Your task to perform on an android device: Open sound settings Image 0: 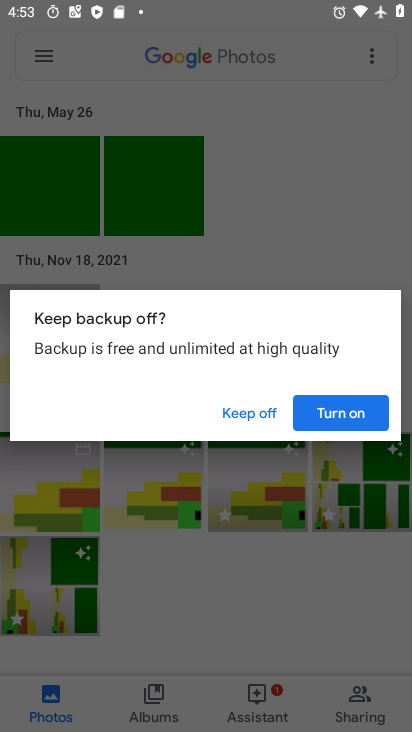
Step 0: press back button
Your task to perform on an android device: Open sound settings Image 1: 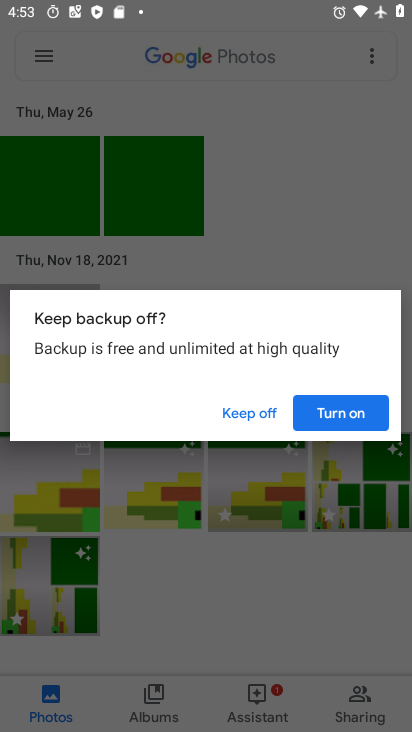
Step 1: press home button
Your task to perform on an android device: Open sound settings Image 2: 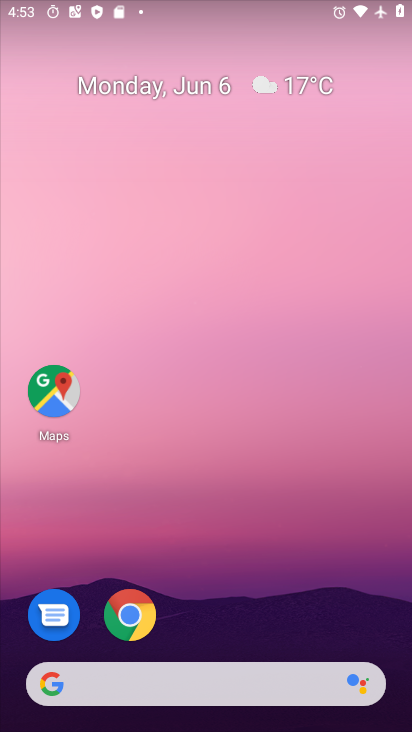
Step 2: drag from (254, 583) to (243, 22)
Your task to perform on an android device: Open sound settings Image 3: 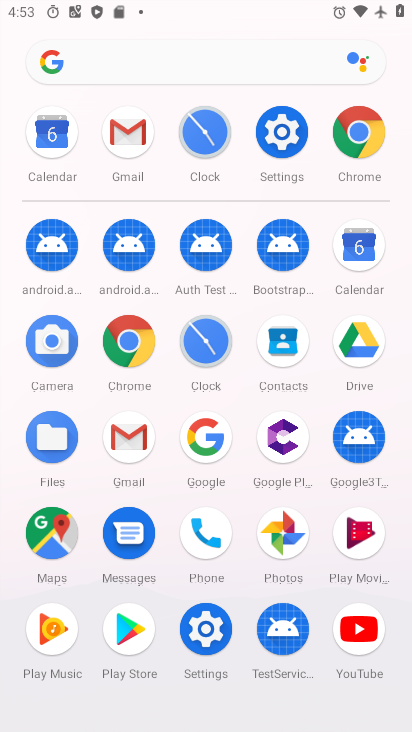
Step 3: drag from (13, 585) to (33, 232)
Your task to perform on an android device: Open sound settings Image 4: 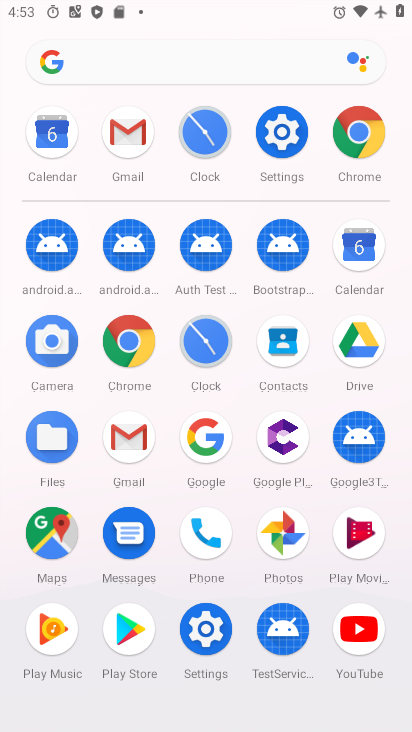
Step 4: click (208, 622)
Your task to perform on an android device: Open sound settings Image 5: 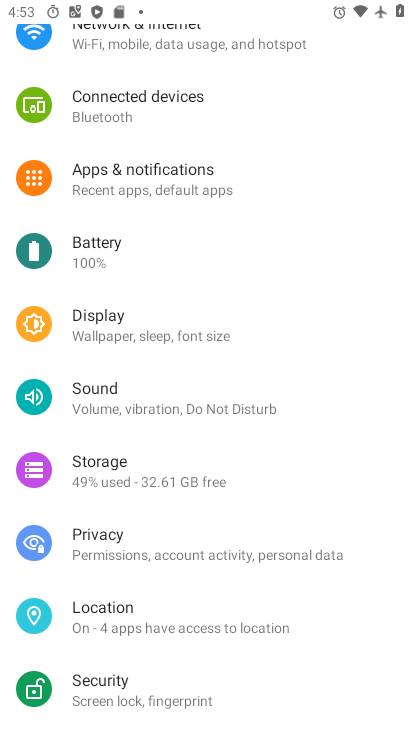
Step 5: drag from (224, 78) to (257, 420)
Your task to perform on an android device: Open sound settings Image 6: 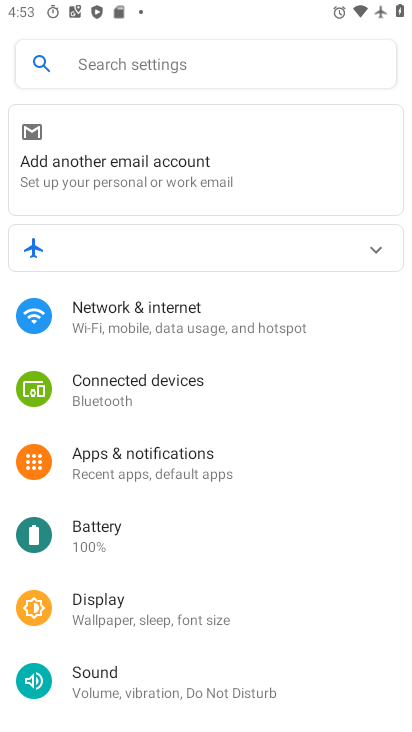
Step 6: click (111, 685)
Your task to perform on an android device: Open sound settings Image 7: 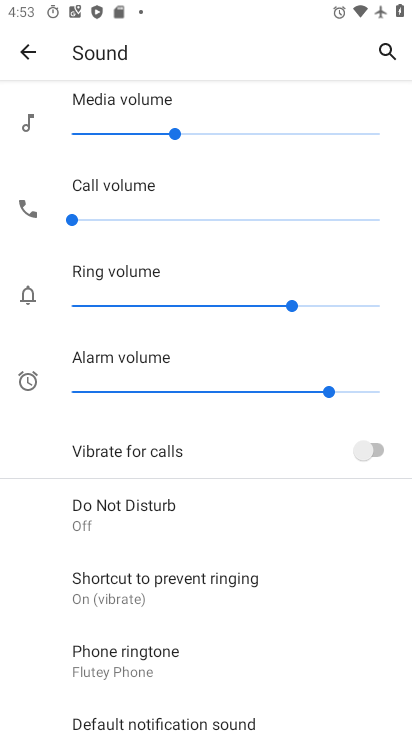
Step 7: drag from (263, 590) to (284, 250)
Your task to perform on an android device: Open sound settings Image 8: 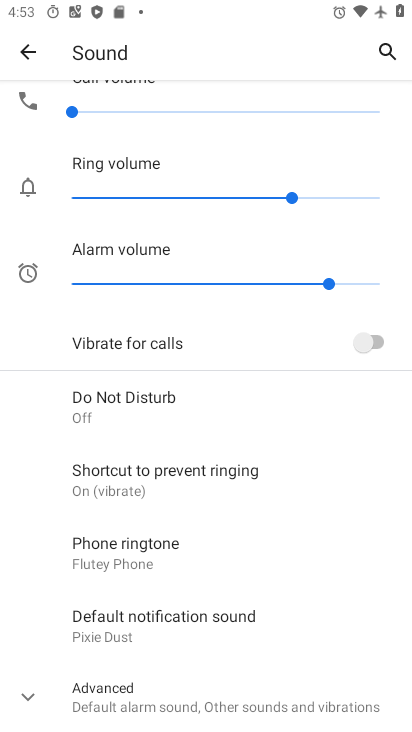
Step 8: click (23, 695)
Your task to perform on an android device: Open sound settings Image 9: 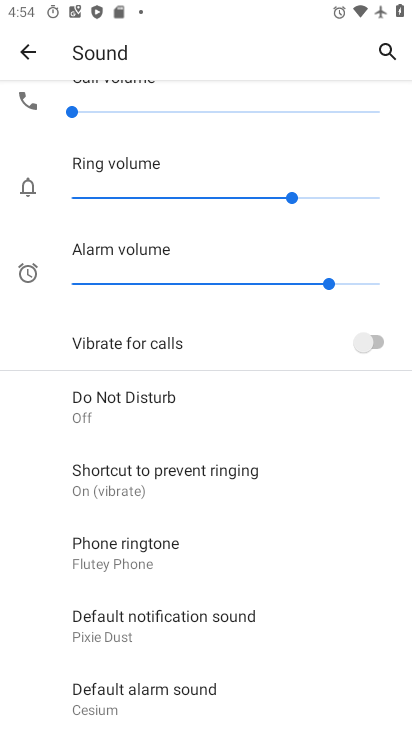
Step 9: task complete